Your task to perform on an android device: Open Youtube and go to the subscriptions tab Image 0: 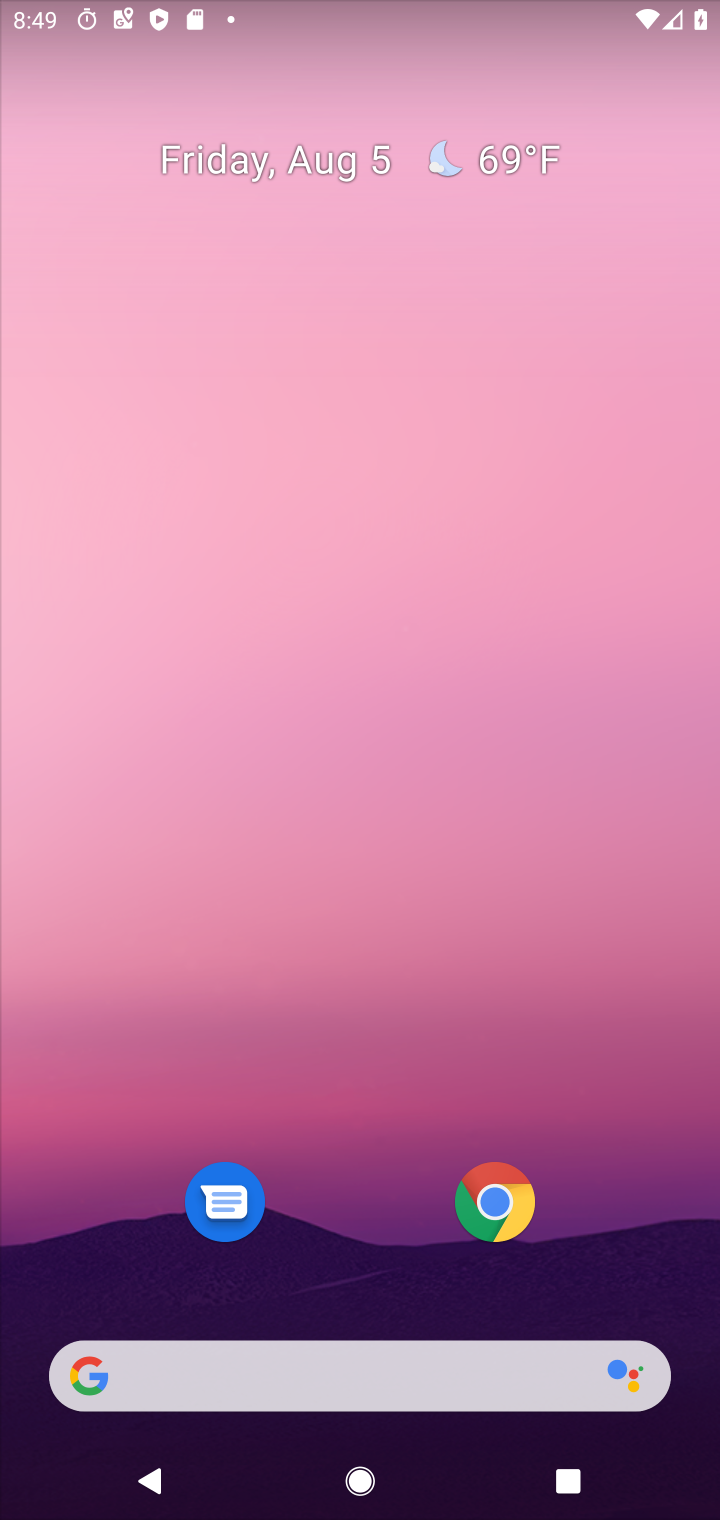
Step 0: drag from (354, 1247) to (338, 443)
Your task to perform on an android device: Open Youtube and go to the subscriptions tab Image 1: 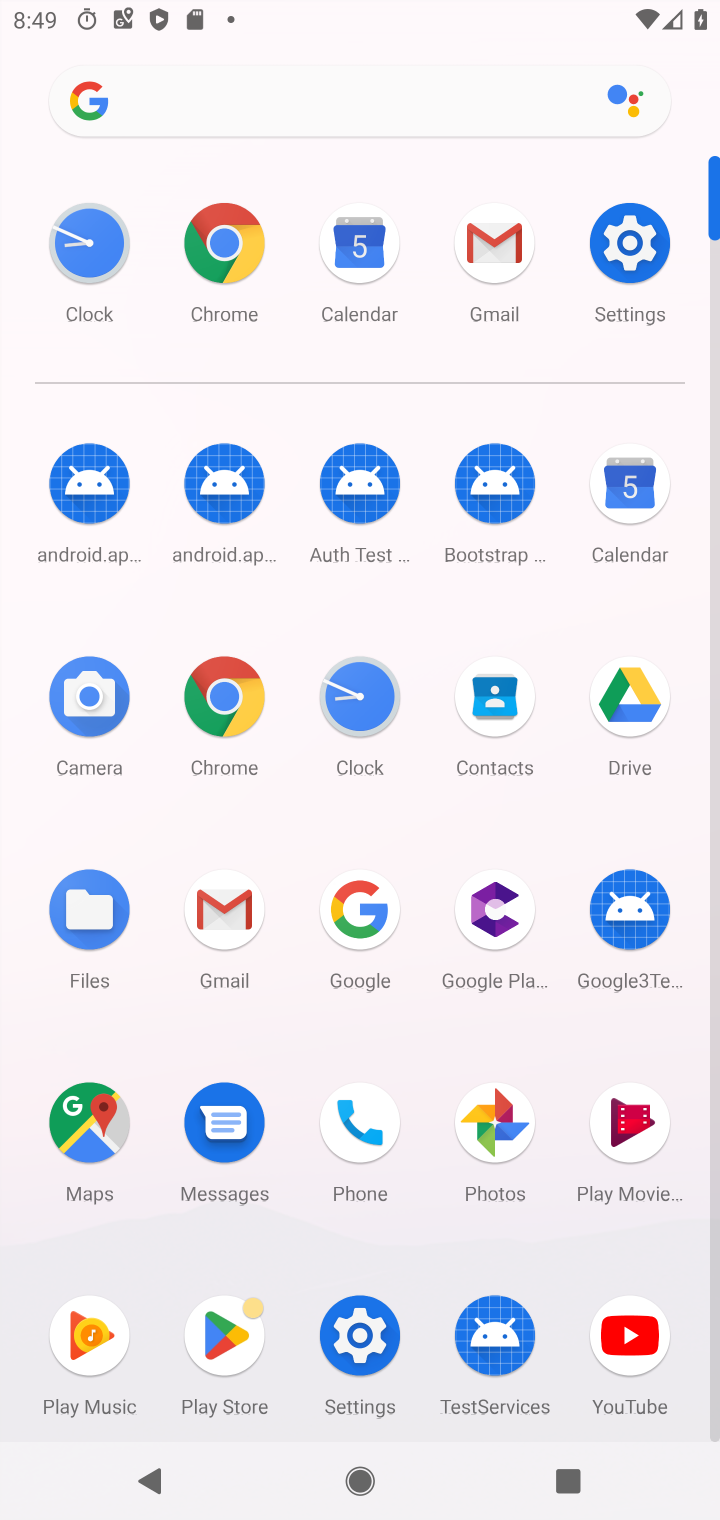
Step 1: click (616, 1331)
Your task to perform on an android device: Open Youtube and go to the subscriptions tab Image 2: 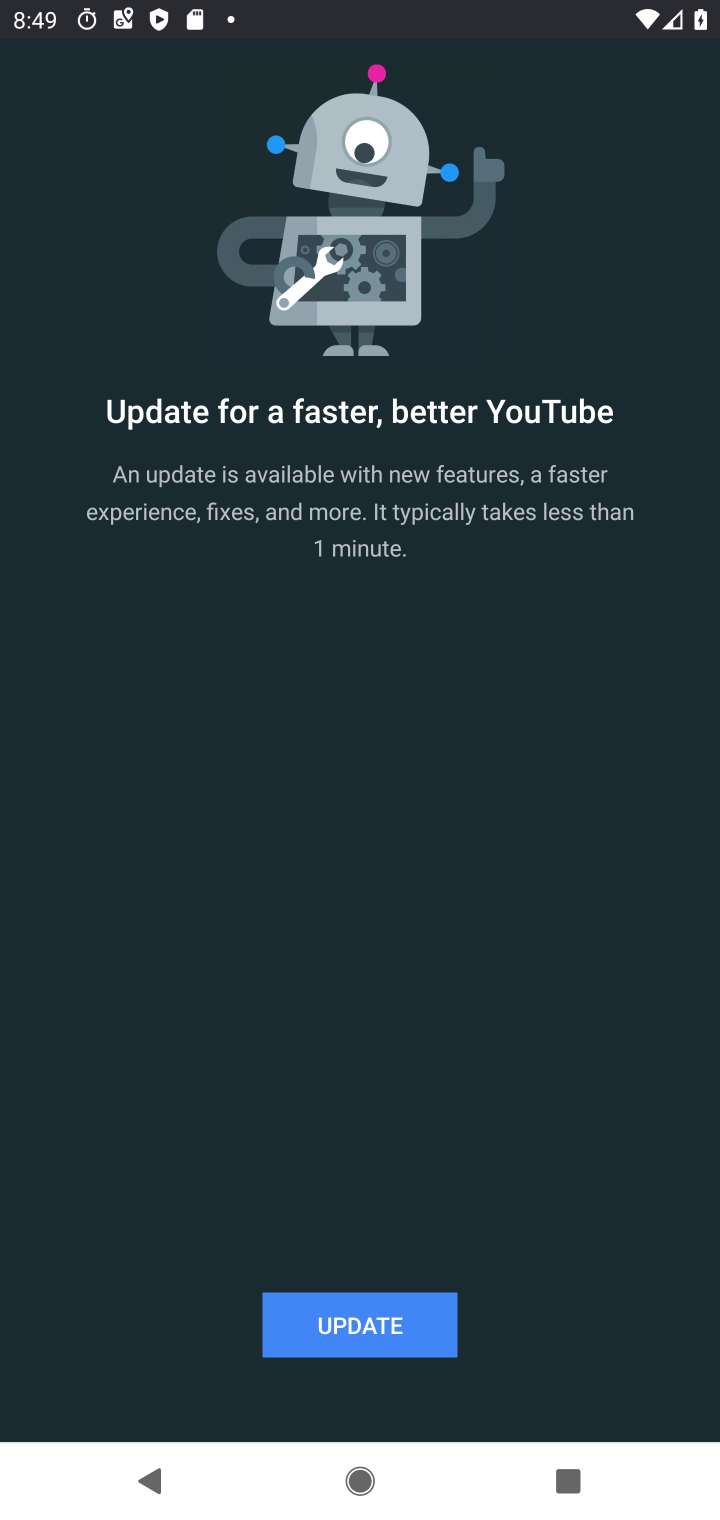
Step 2: click (377, 1331)
Your task to perform on an android device: Open Youtube and go to the subscriptions tab Image 3: 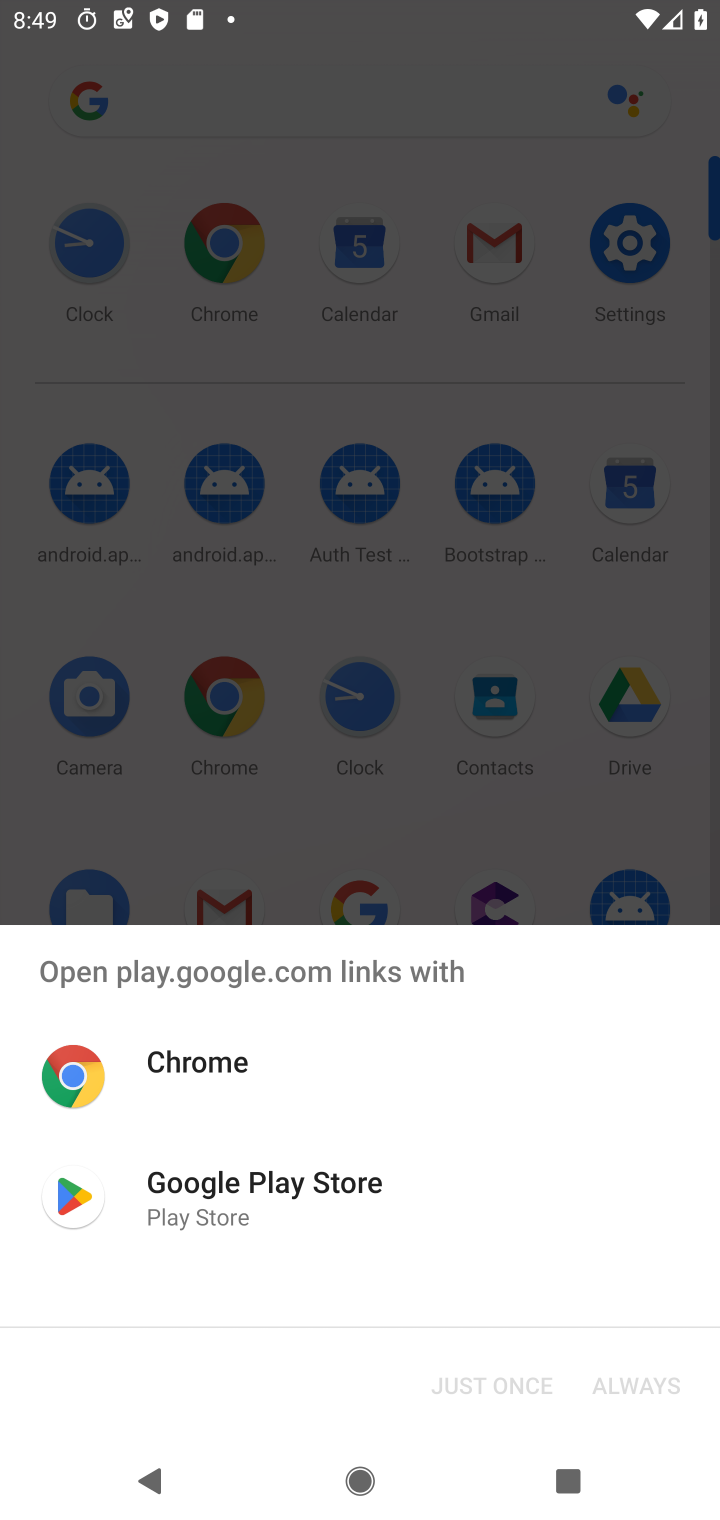
Step 3: click (293, 1198)
Your task to perform on an android device: Open Youtube and go to the subscriptions tab Image 4: 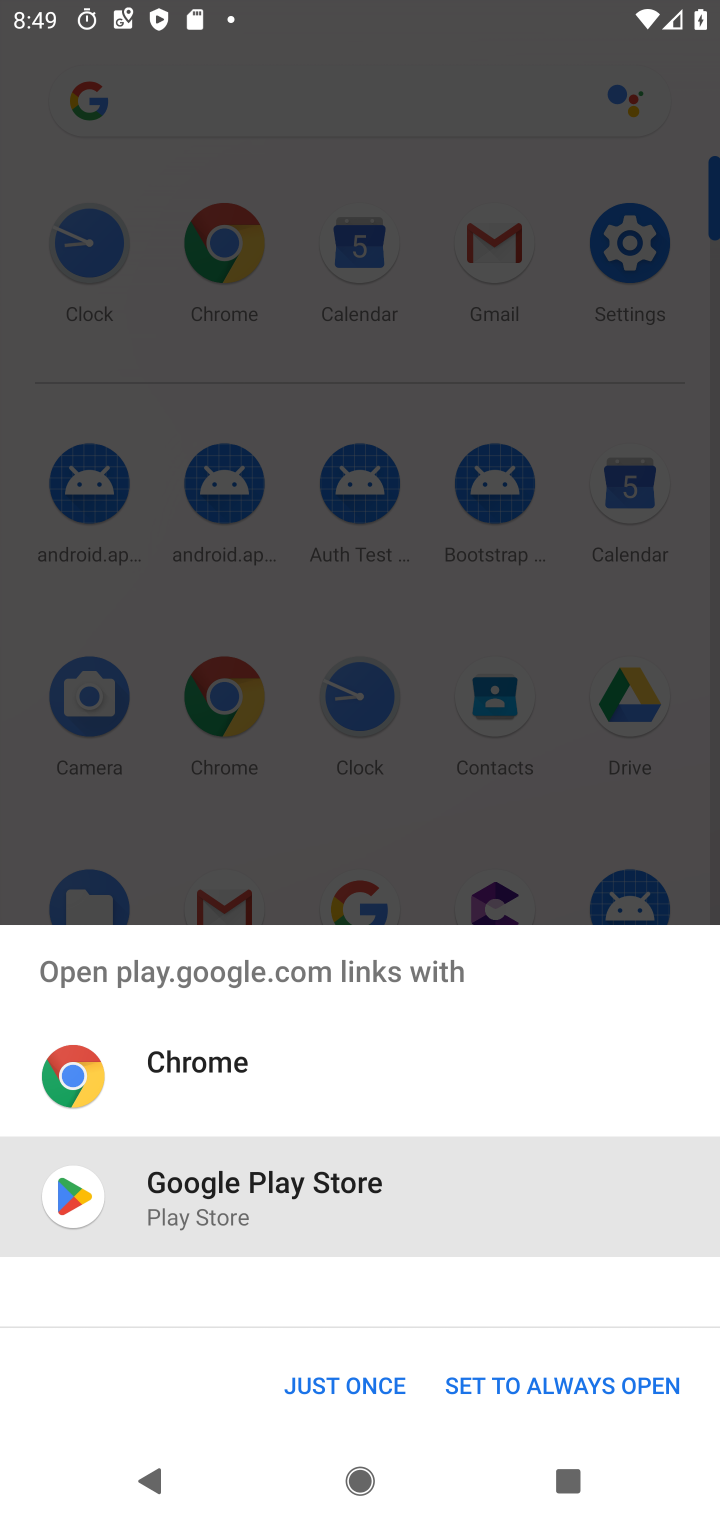
Step 4: click (346, 1387)
Your task to perform on an android device: Open Youtube and go to the subscriptions tab Image 5: 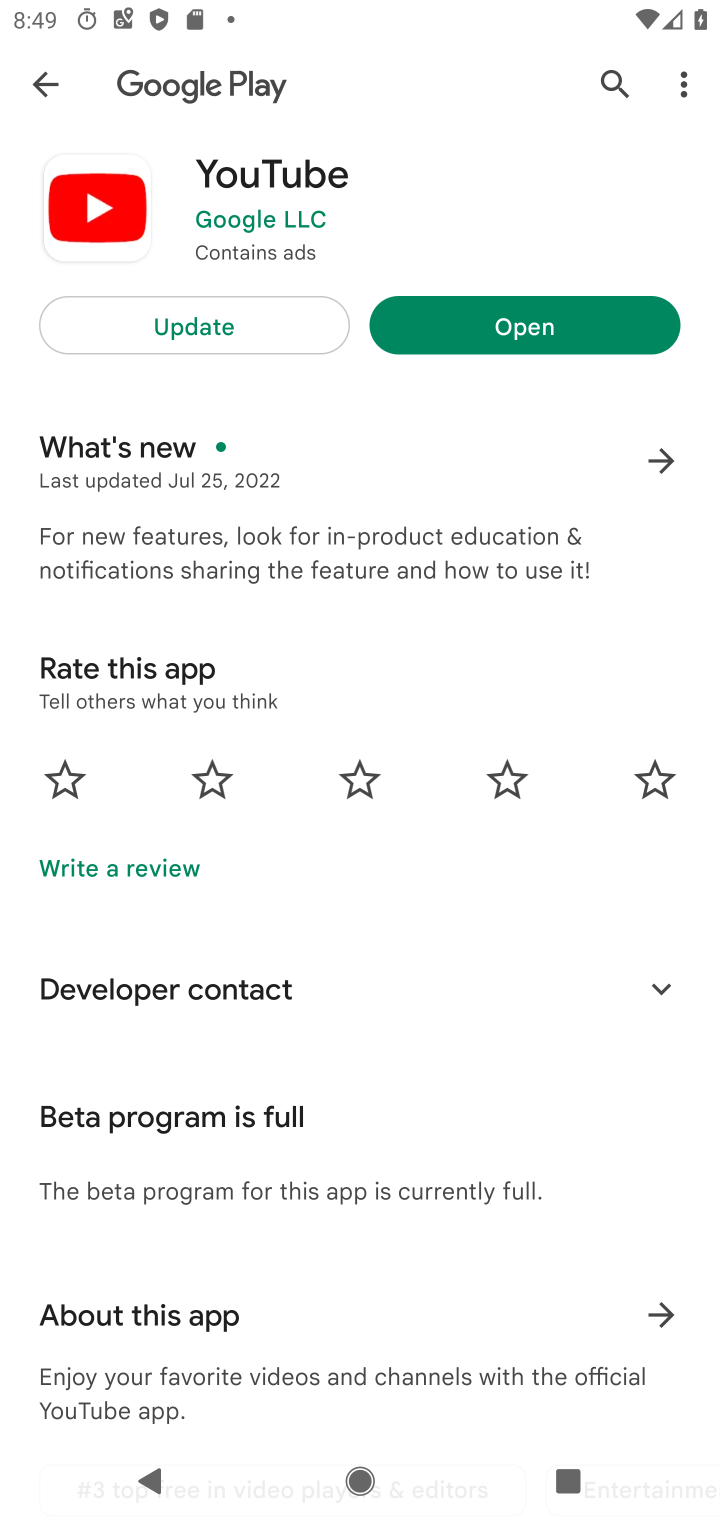
Step 5: click (261, 323)
Your task to perform on an android device: Open Youtube and go to the subscriptions tab Image 6: 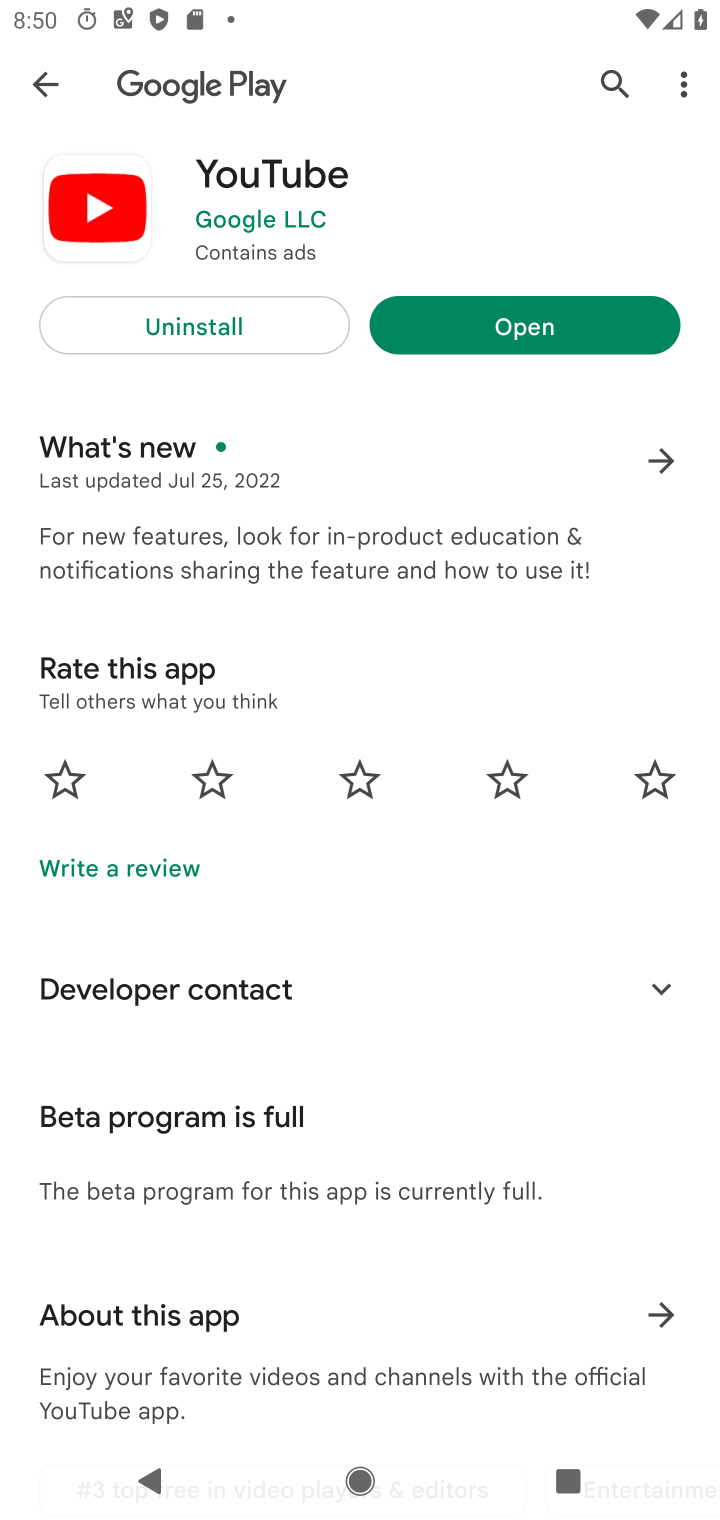
Step 6: click (425, 333)
Your task to perform on an android device: Open Youtube and go to the subscriptions tab Image 7: 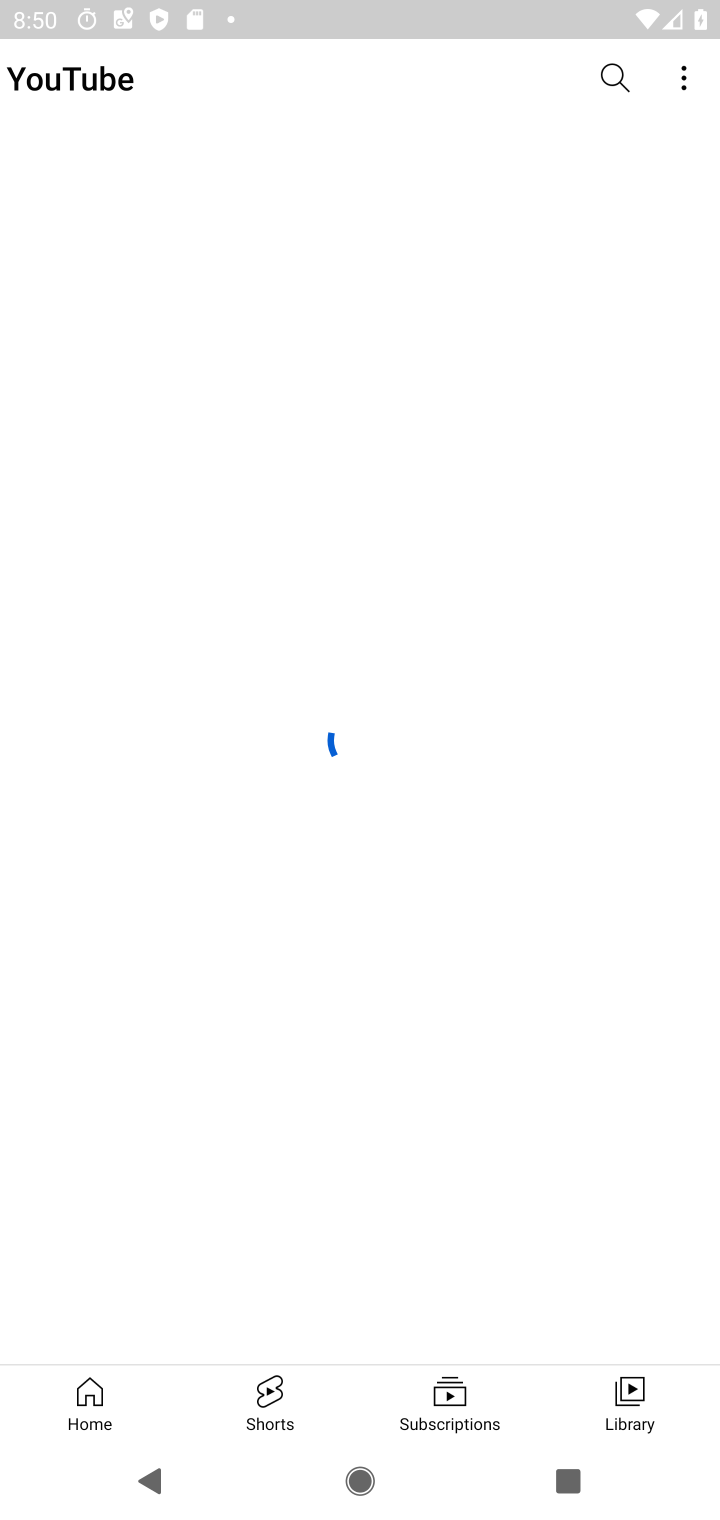
Step 7: click (464, 1396)
Your task to perform on an android device: Open Youtube and go to the subscriptions tab Image 8: 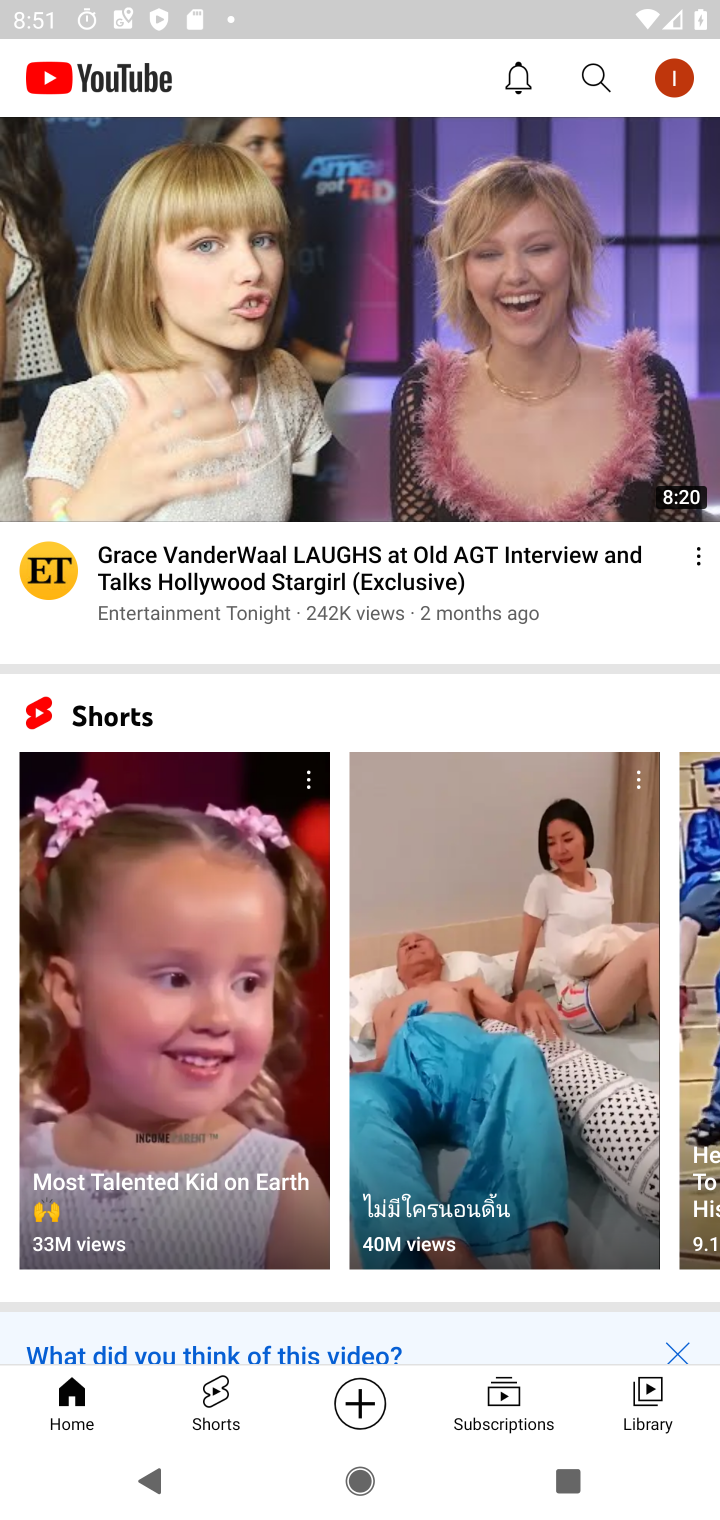
Step 8: click (510, 1397)
Your task to perform on an android device: Open Youtube and go to the subscriptions tab Image 9: 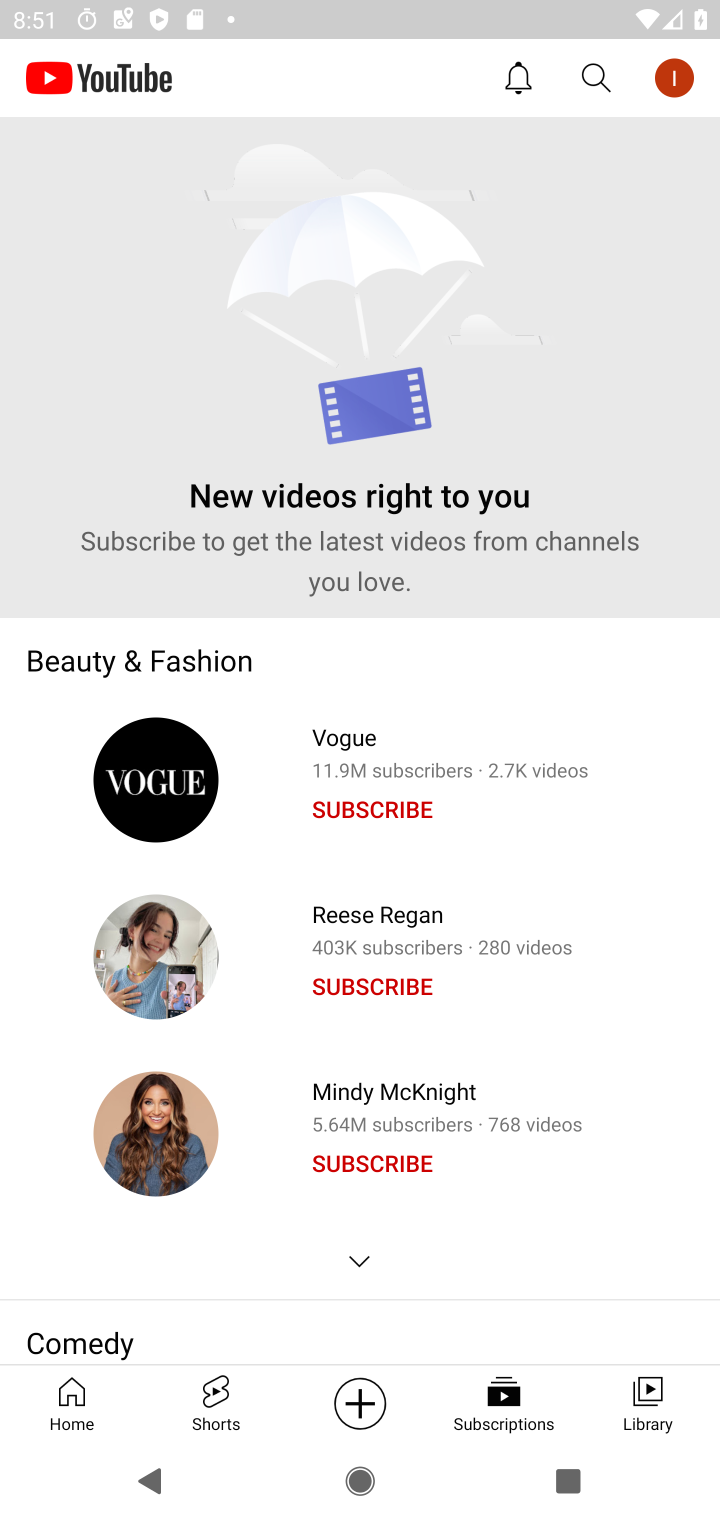
Step 9: task complete